Your task to perform on an android device: What is the recent news? Image 0: 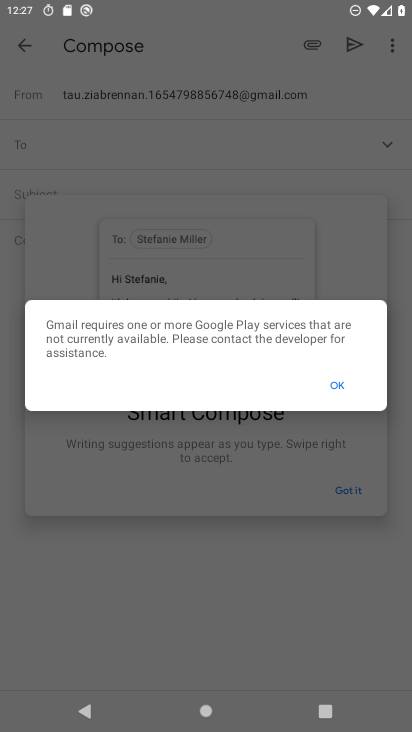
Step 0: press home button
Your task to perform on an android device: What is the recent news? Image 1: 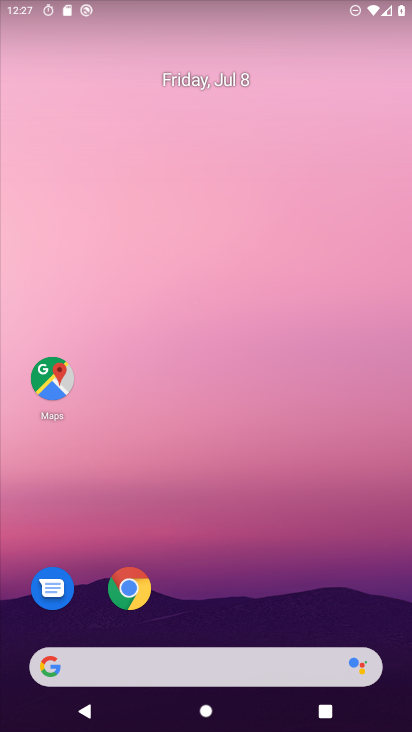
Step 1: drag from (251, 567) to (224, 124)
Your task to perform on an android device: What is the recent news? Image 2: 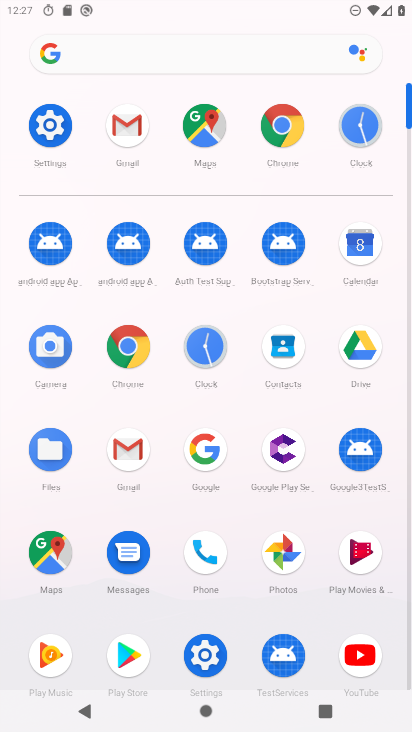
Step 2: click (282, 118)
Your task to perform on an android device: What is the recent news? Image 3: 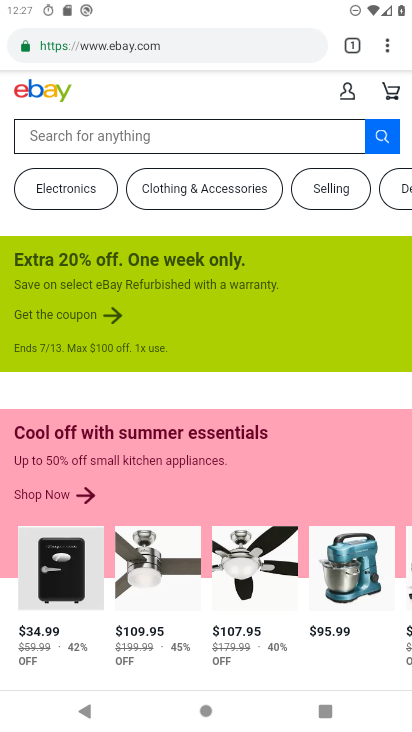
Step 3: click (192, 46)
Your task to perform on an android device: What is the recent news? Image 4: 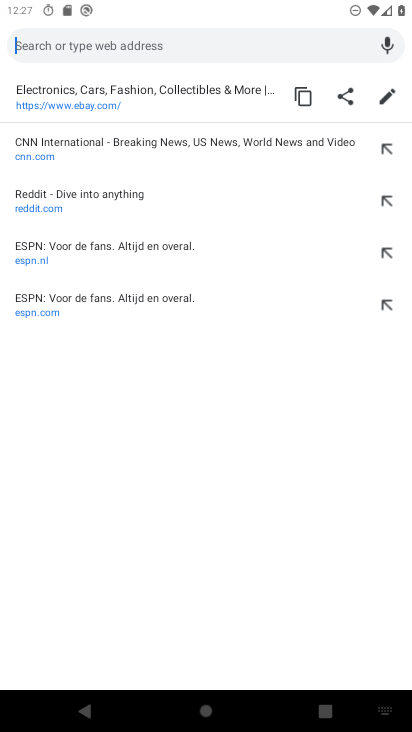
Step 4: type "news"
Your task to perform on an android device: What is the recent news? Image 5: 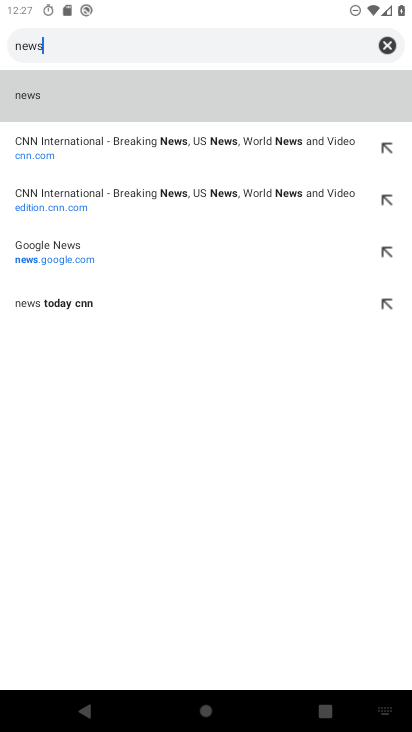
Step 5: click (46, 93)
Your task to perform on an android device: What is the recent news? Image 6: 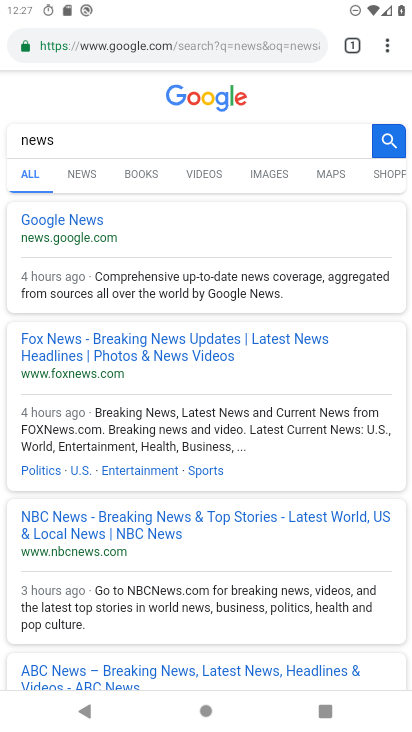
Step 6: click (78, 217)
Your task to perform on an android device: What is the recent news? Image 7: 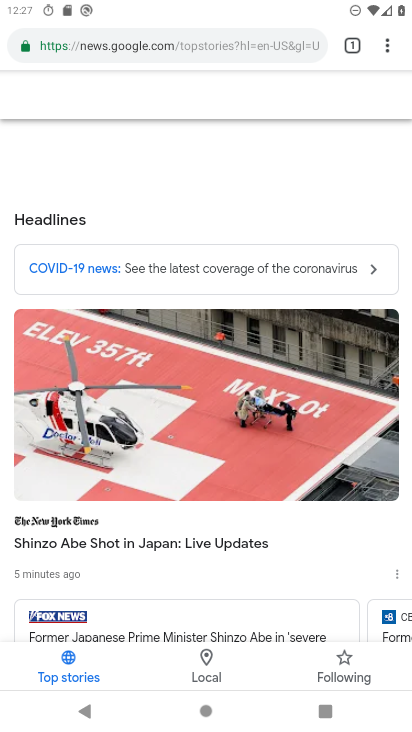
Step 7: task complete